Your task to perform on an android device: delete browsing data in the chrome app Image 0: 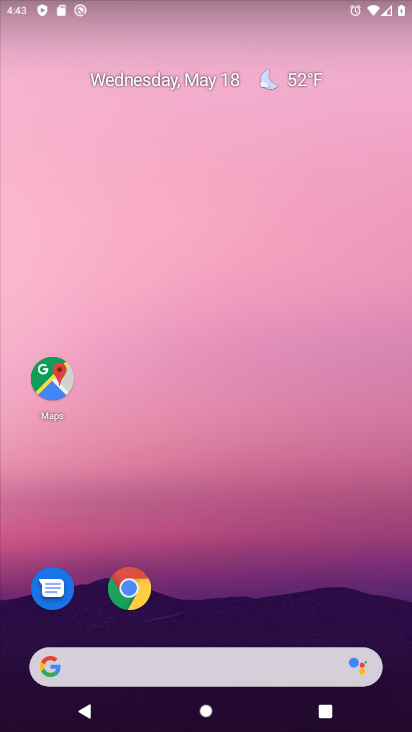
Step 0: drag from (258, 444) to (215, 23)
Your task to perform on an android device: delete browsing data in the chrome app Image 1: 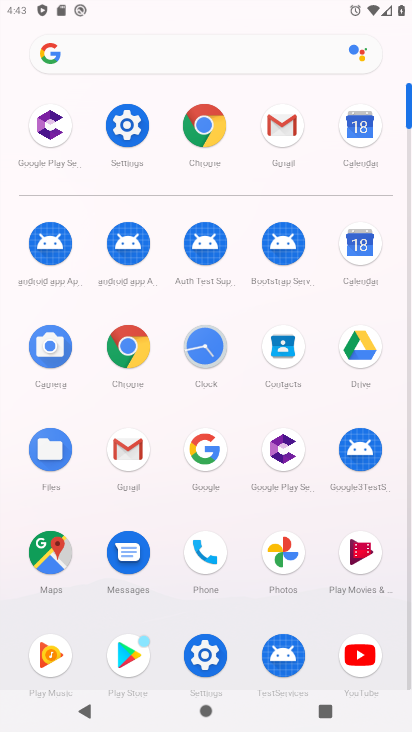
Step 1: click (207, 126)
Your task to perform on an android device: delete browsing data in the chrome app Image 2: 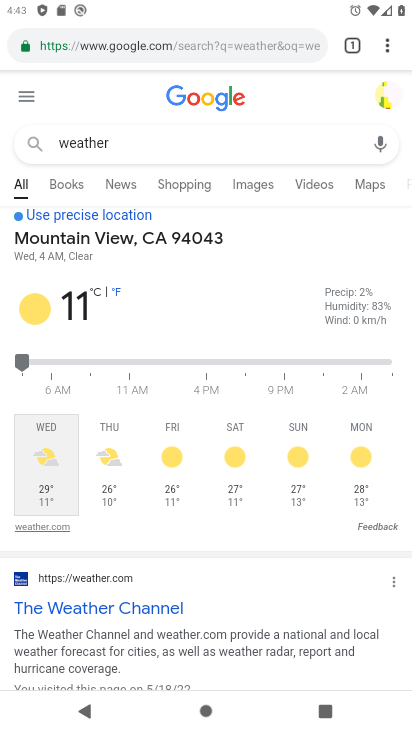
Step 2: drag from (393, 43) to (233, 268)
Your task to perform on an android device: delete browsing data in the chrome app Image 3: 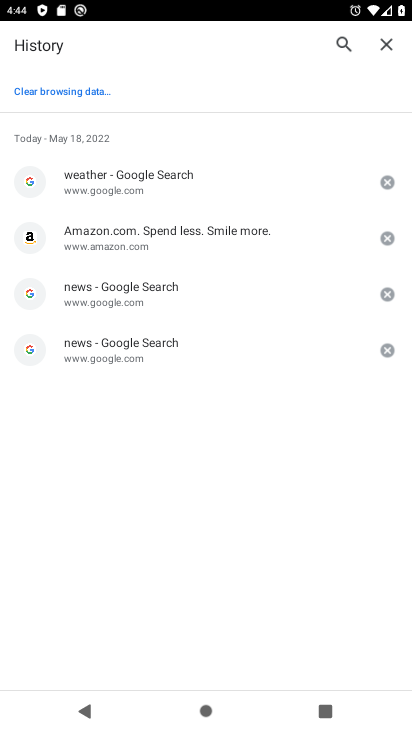
Step 3: click (52, 97)
Your task to perform on an android device: delete browsing data in the chrome app Image 4: 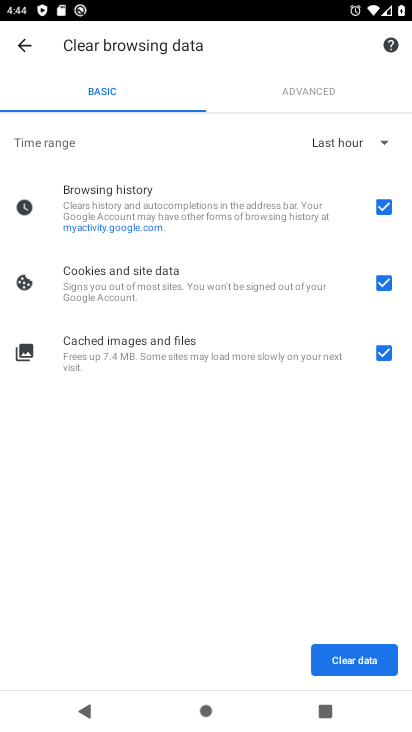
Step 4: click (353, 142)
Your task to perform on an android device: delete browsing data in the chrome app Image 5: 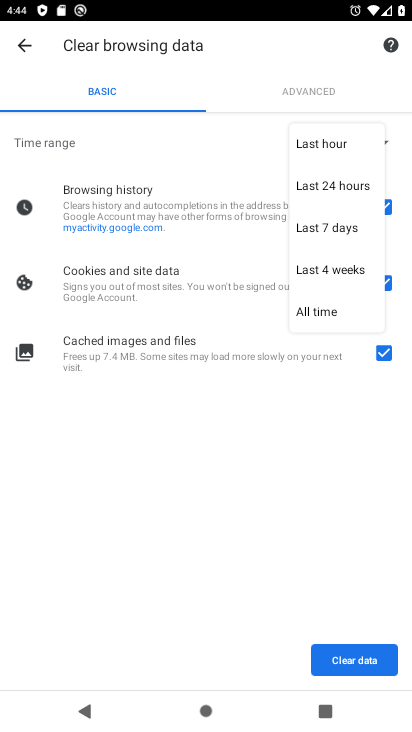
Step 5: click (321, 315)
Your task to perform on an android device: delete browsing data in the chrome app Image 6: 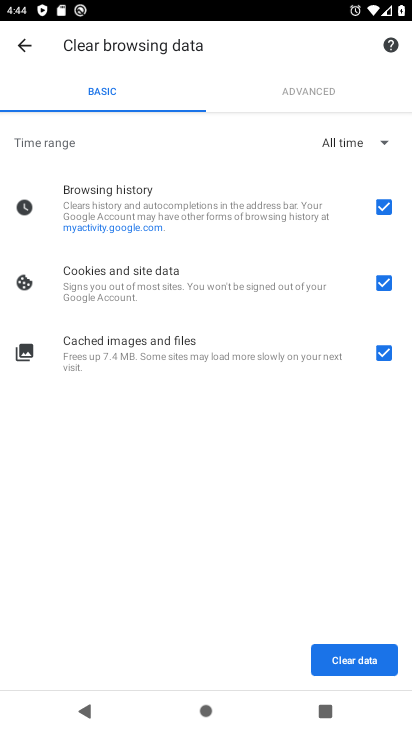
Step 6: click (334, 671)
Your task to perform on an android device: delete browsing data in the chrome app Image 7: 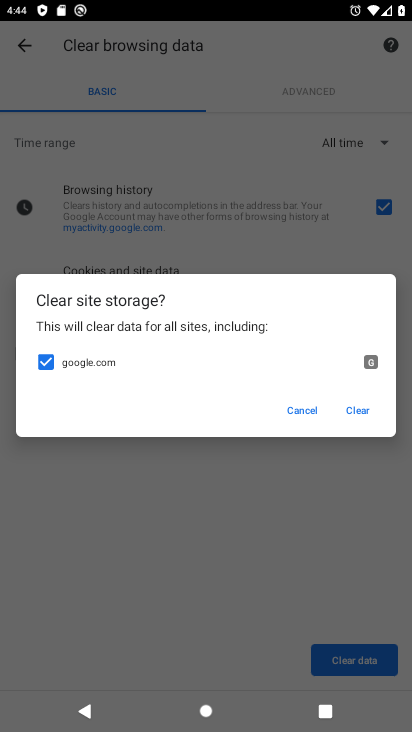
Step 7: click (358, 406)
Your task to perform on an android device: delete browsing data in the chrome app Image 8: 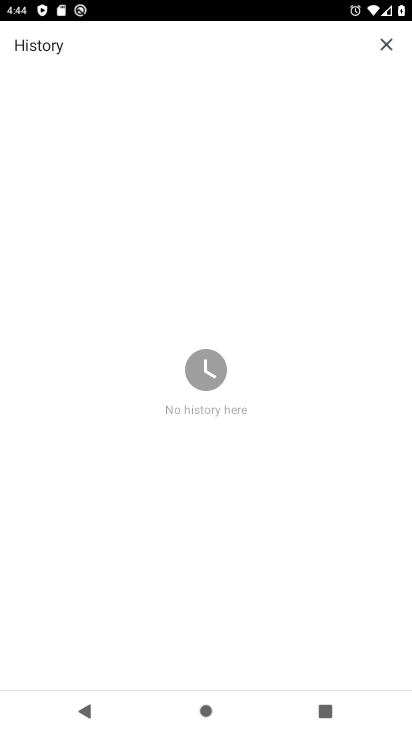
Step 8: task complete